Your task to perform on an android device: What's on the menu at Five Guys? Image 0: 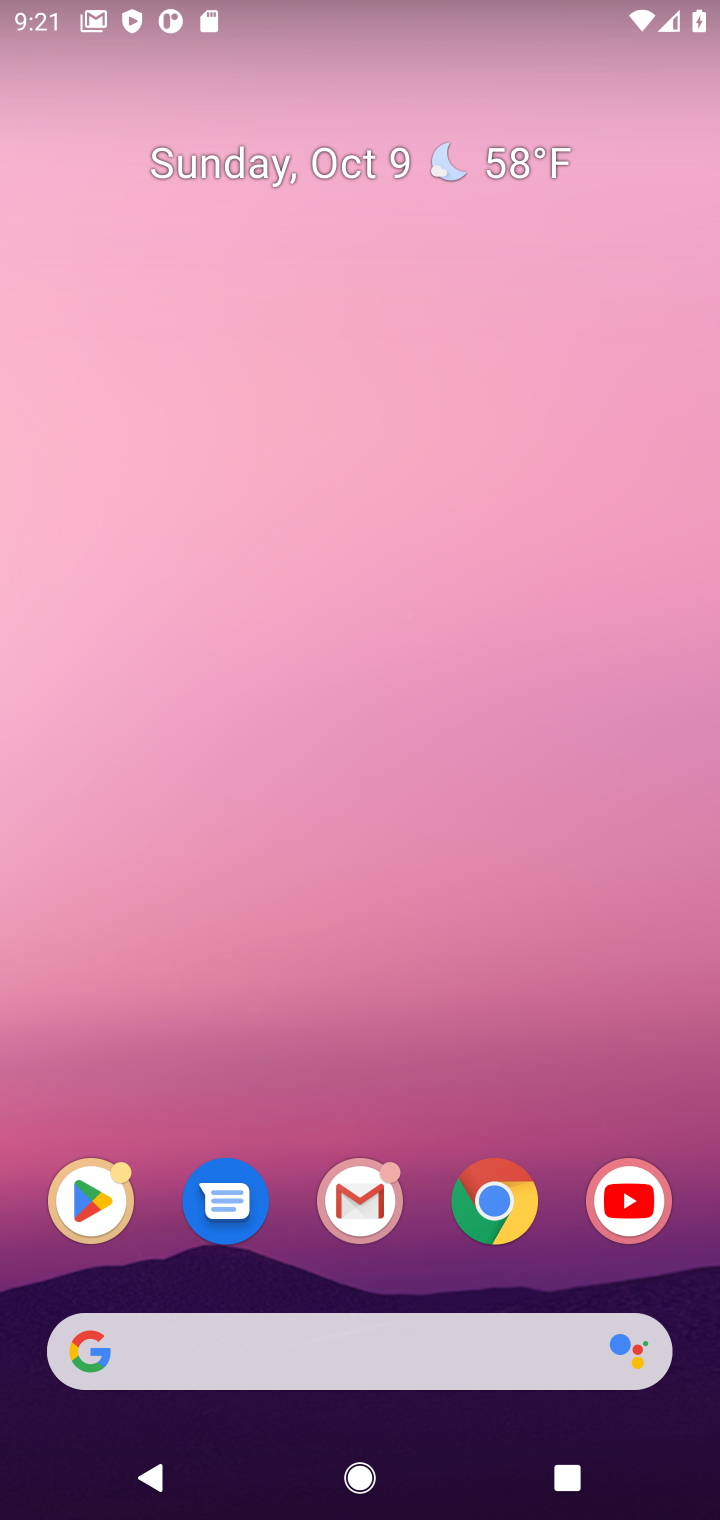
Step 0: drag from (352, 1297) to (366, 304)
Your task to perform on an android device: What's on the menu at Five Guys? Image 1: 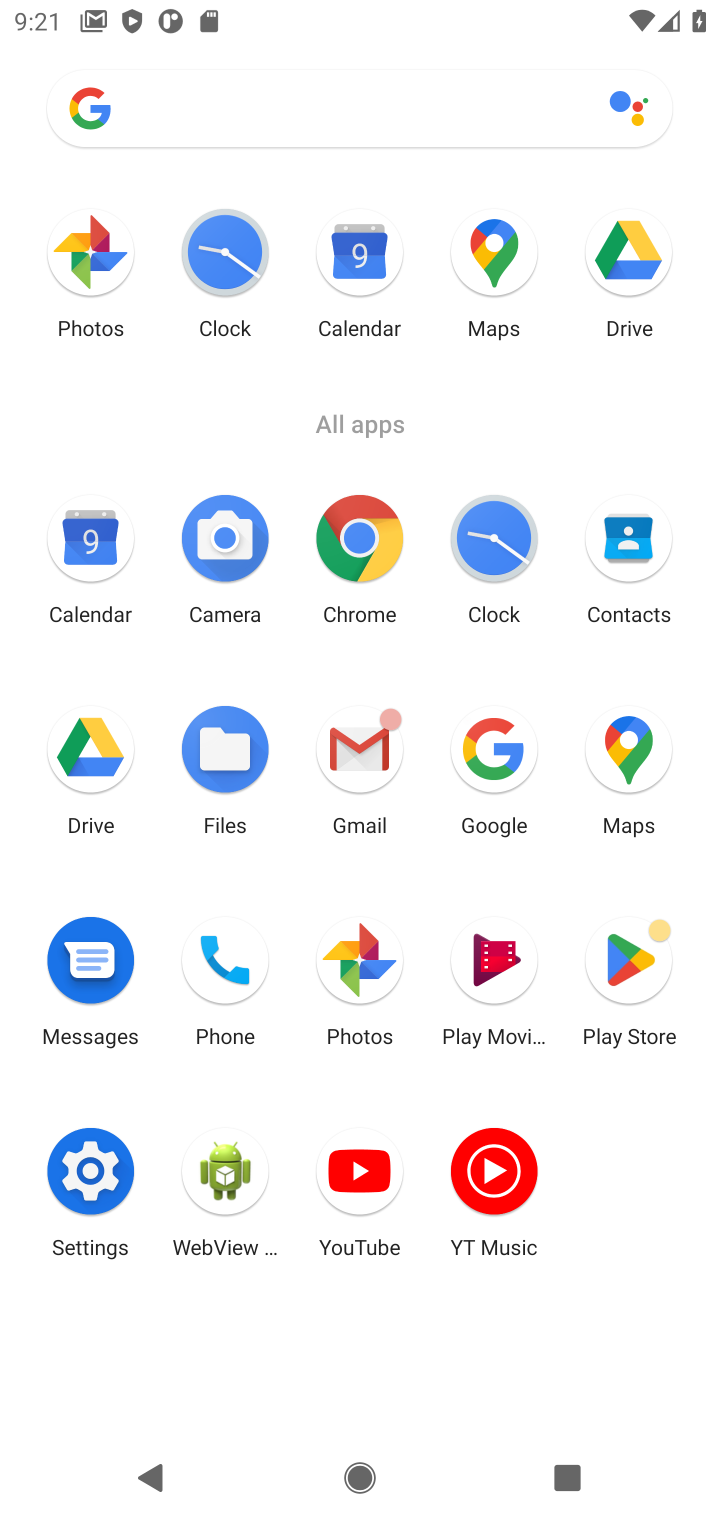
Step 1: click (495, 743)
Your task to perform on an android device: What's on the menu at Five Guys? Image 2: 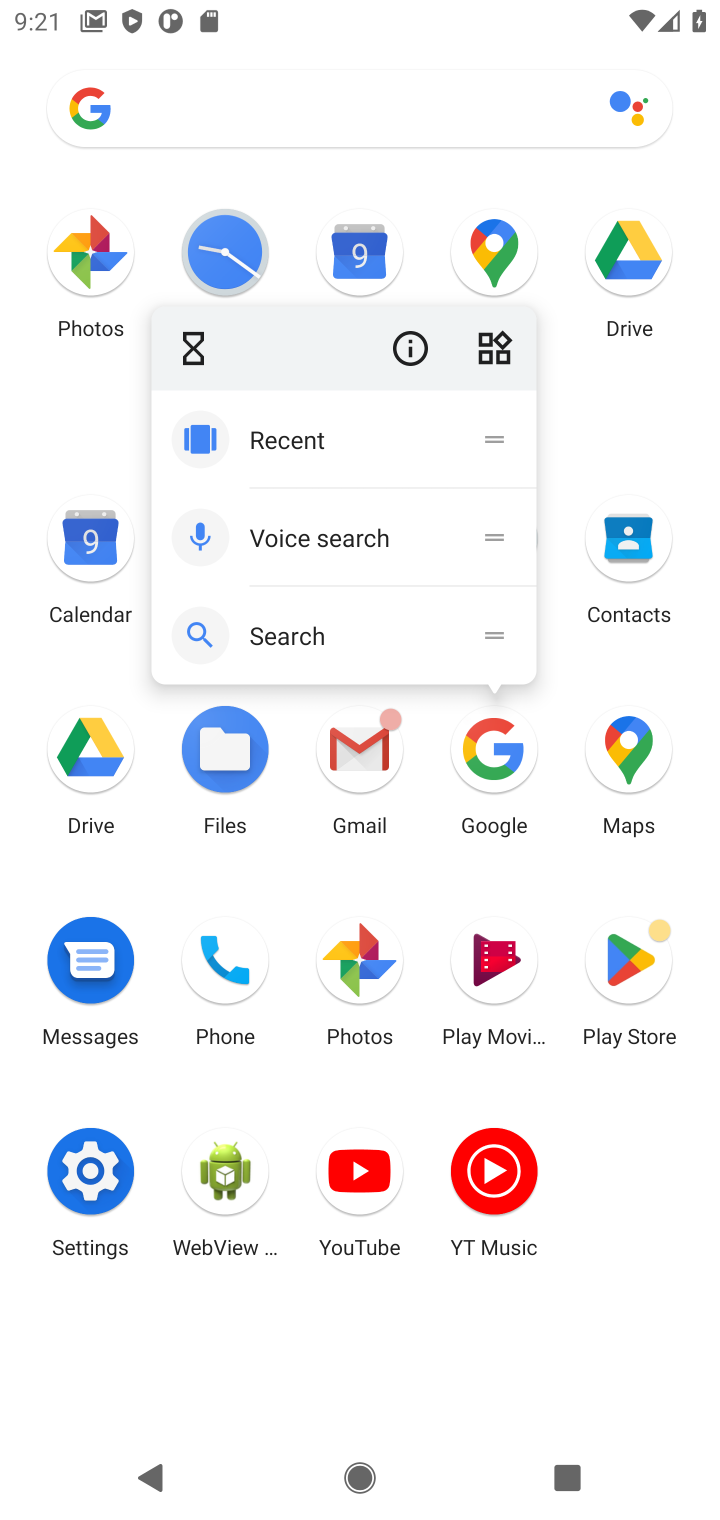
Step 2: click (530, 763)
Your task to perform on an android device: What's on the menu at Five Guys? Image 3: 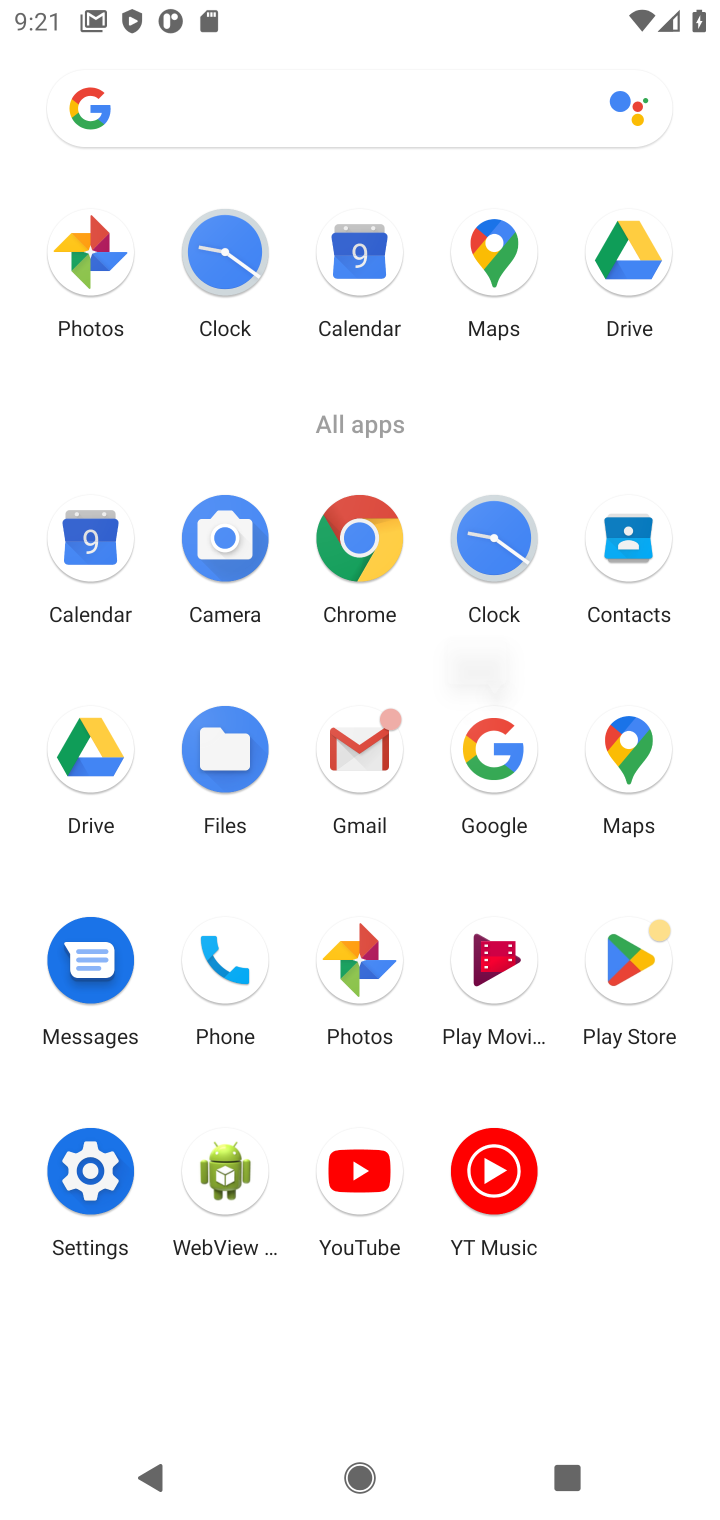
Step 3: click (494, 754)
Your task to perform on an android device: What's on the menu at Five Guys? Image 4: 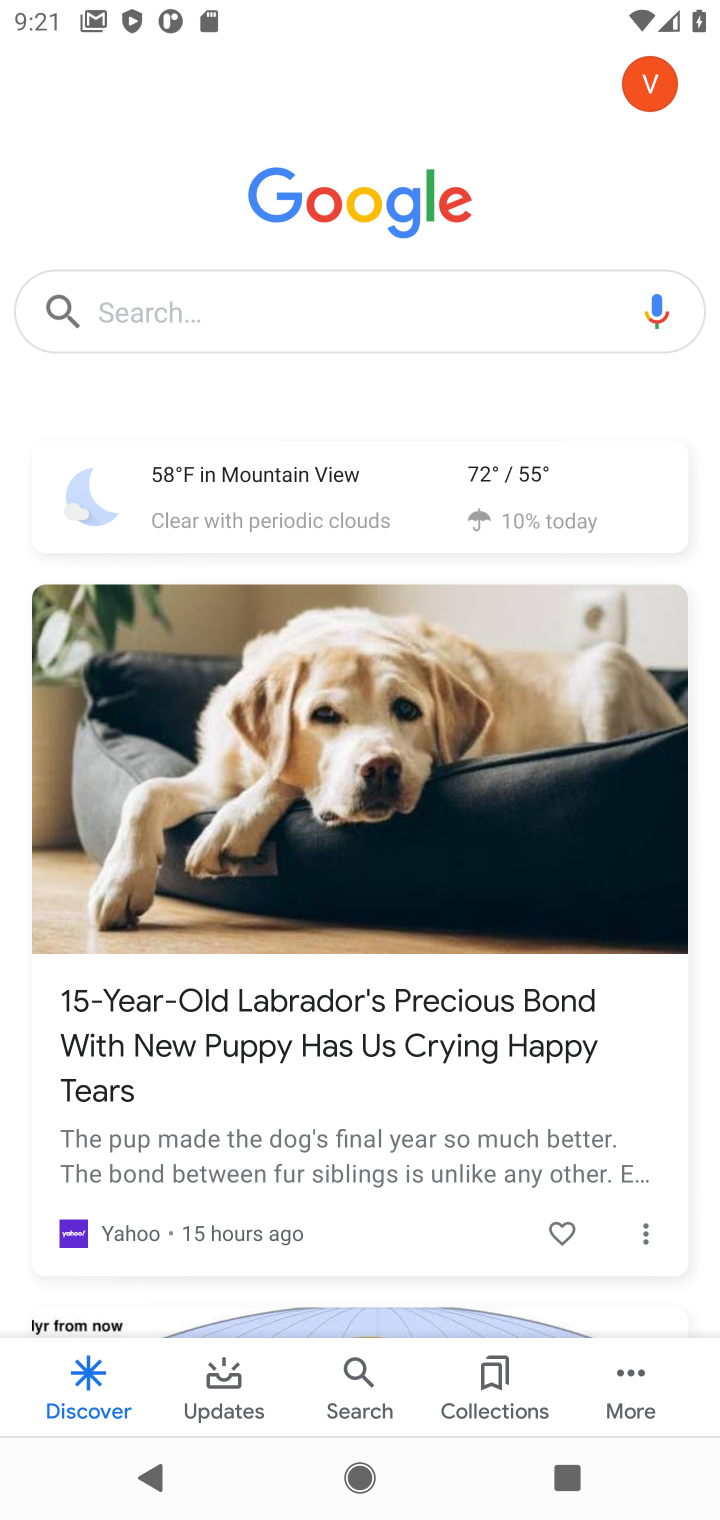
Step 4: click (320, 282)
Your task to perform on an android device: What's on the menu at Five Guys? Image 5: 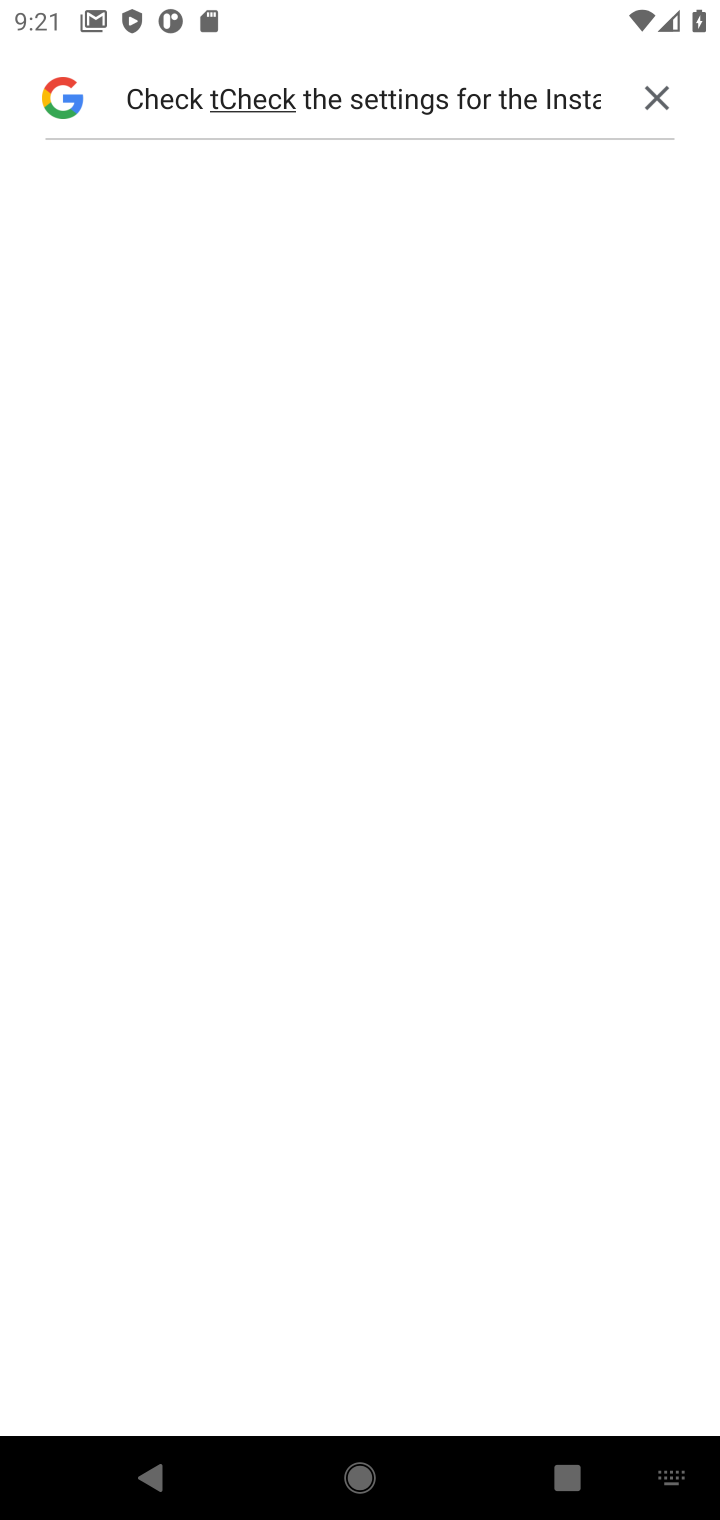
Step 5: click (662, 103)
Your task to perform on an android device: What's on the menu at Five Guys? Image 6: 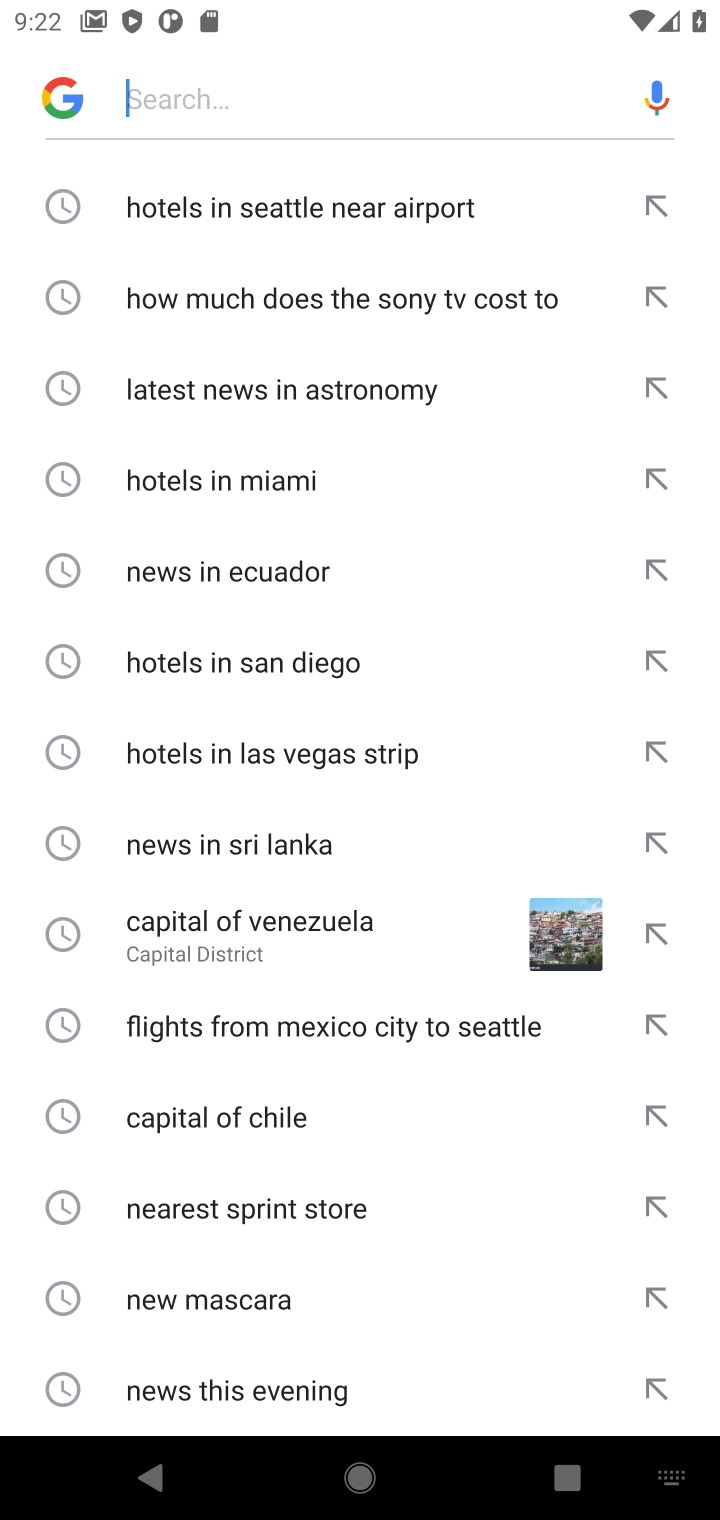
Step 6: type "What's on the menu at Five Guys?"
Your task to perform on an android device: What's on the menu at Five Guys? Image 7: 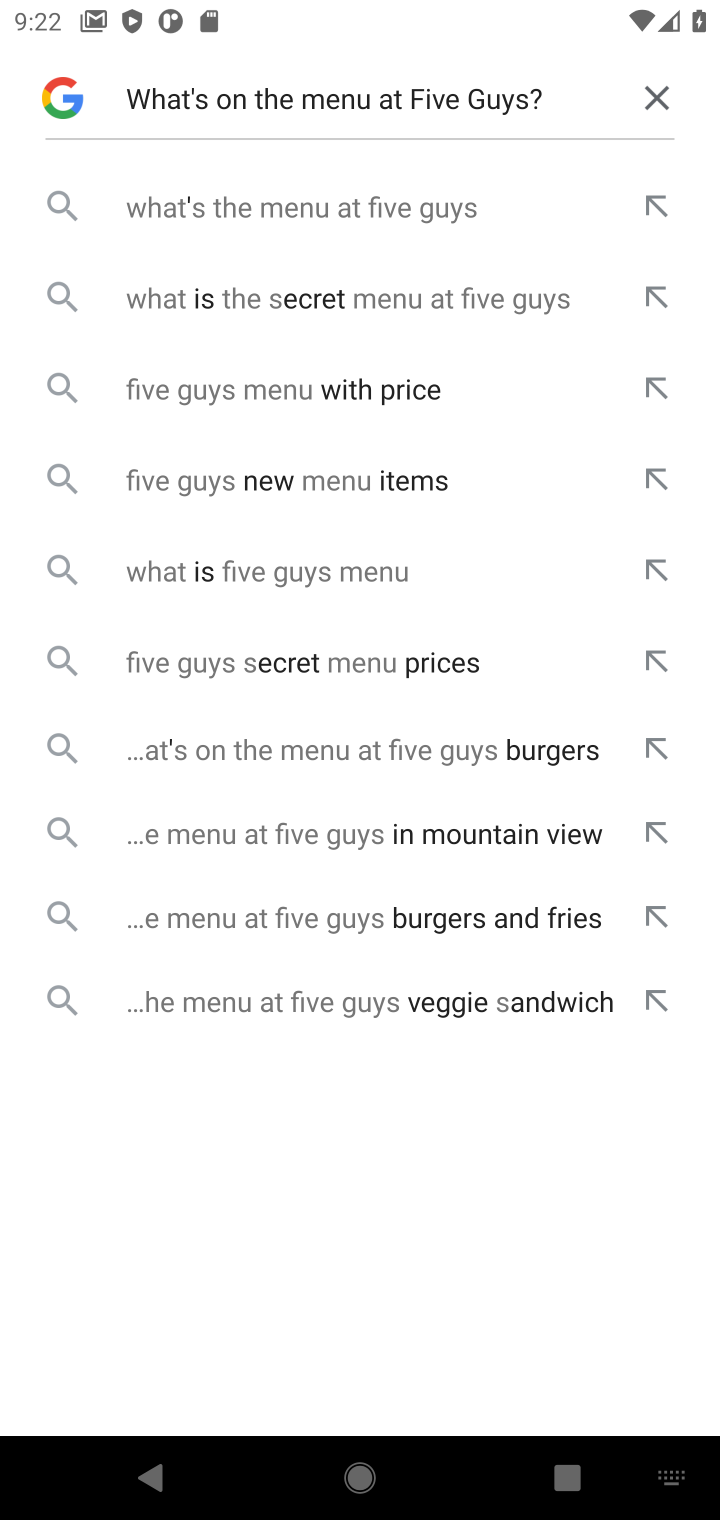
Step 7: click (282, 180)
Your task to perform on an android device: What's on the menu at Five Guys? Image 8: 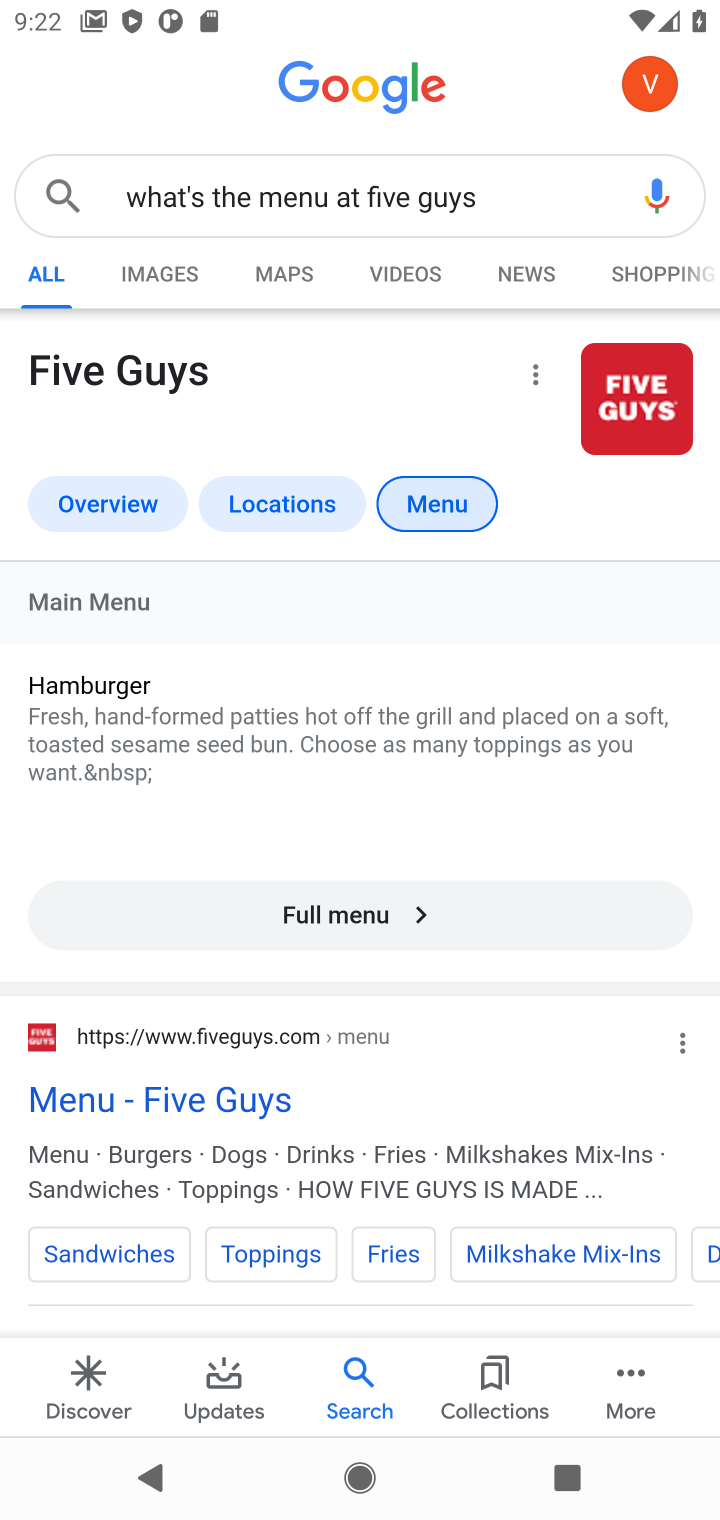
Step 8: click (194, 1092)
Your task to perform on an android device: What's on the menu at Five Guys? Image 9: 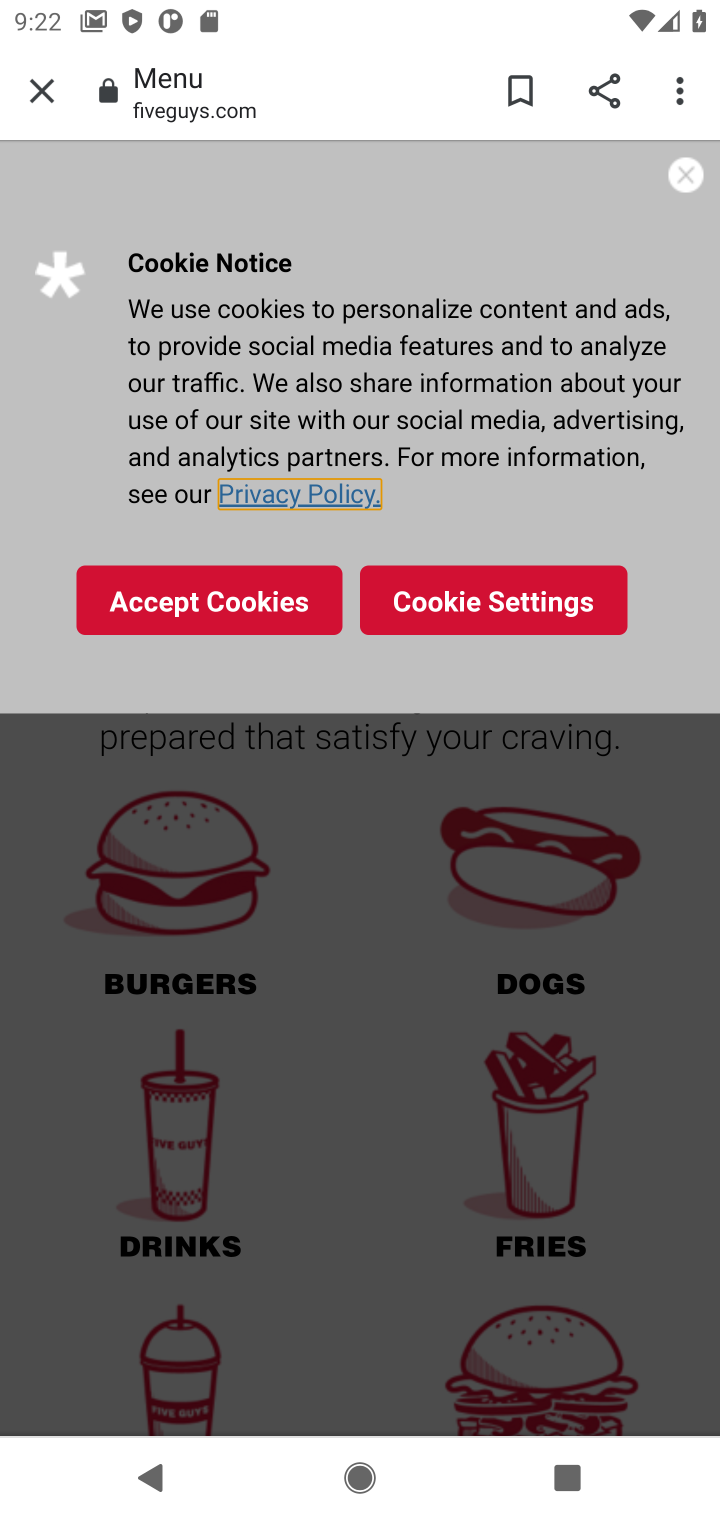
Step 9: task complete